Your task to perform on an android device: Show me recent news Image 0: 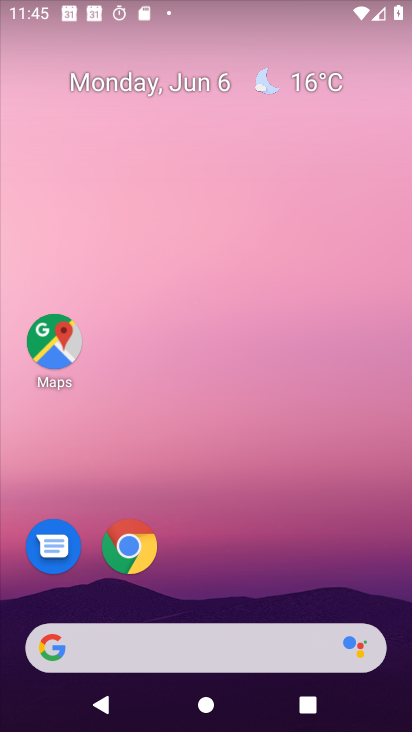
Step 0: drag from (205, 588) to (410, 132)
Your task to perform on an android device: Show me recent news Image 1: 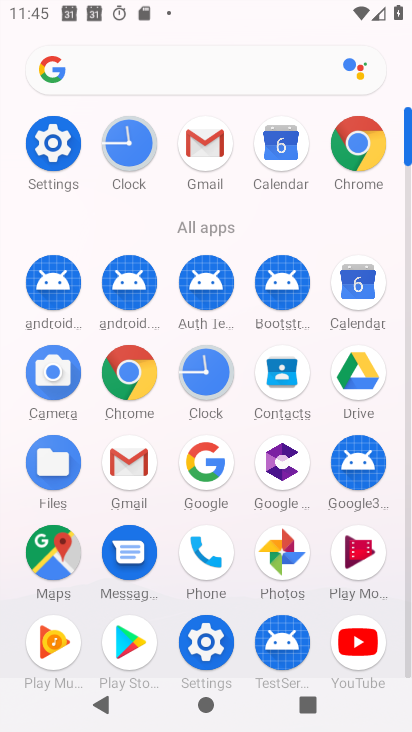
Step 1: click (224, 58)
Your task to perform on an android device: Show me recent news Image 2: 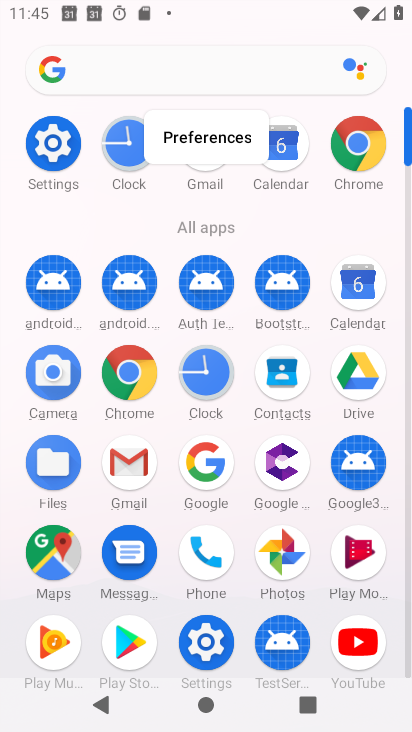
Step 2: click (154, 80)
Your task to perform on an android device: Show me recent news Image 3: 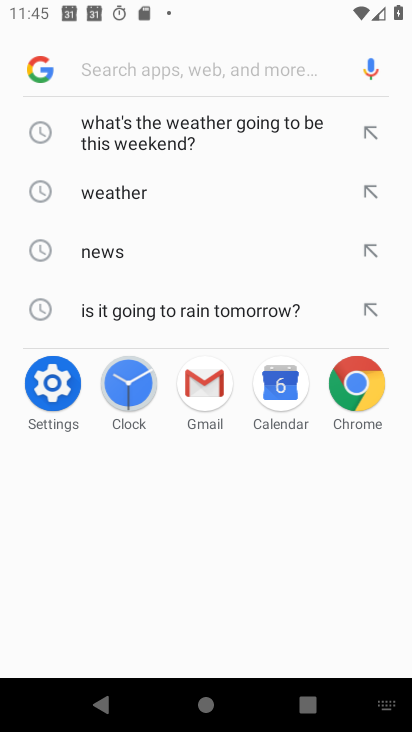
Step 3: type "recent news"
Your task to perform on an android device: Show me recent news Image 4: 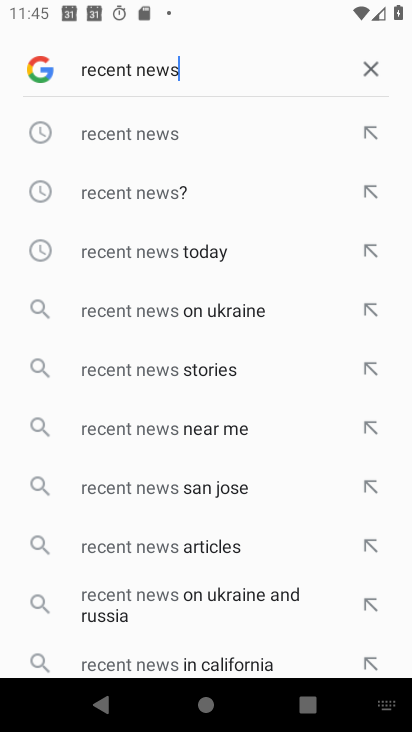
Step 4: click (152, 148)
Your task to perform on an android device: Show me recent news Image 5: 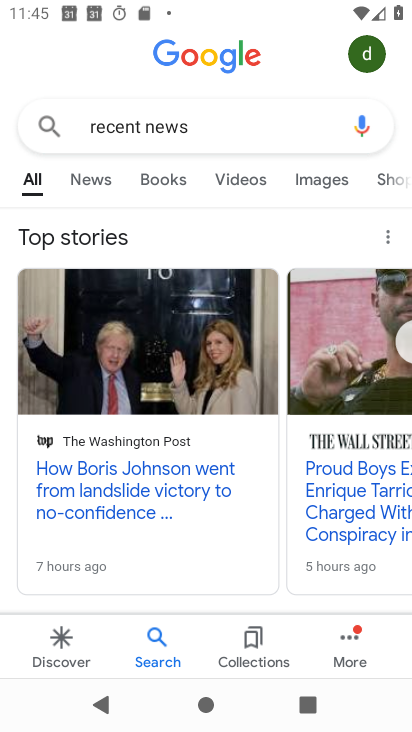
Step 5: task complete